Your task to perform on an android device: Open the calendar app, open the side menu, and click the "Day" option Image 0: 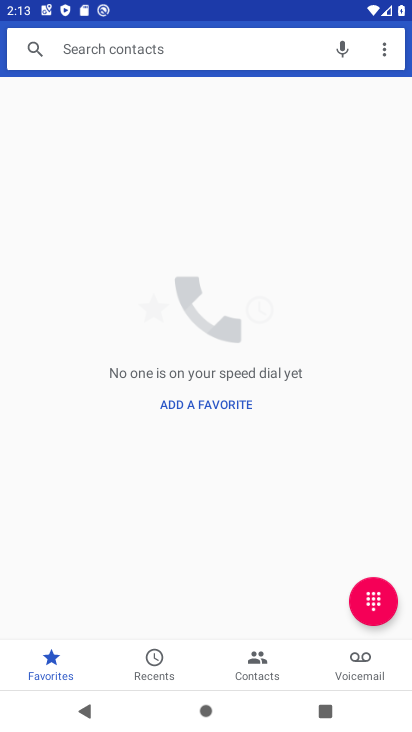
Step 0: press back button
Your task to perform on an android device: Open the calendar app, open the side menu, and click the "Day" option Image 1: 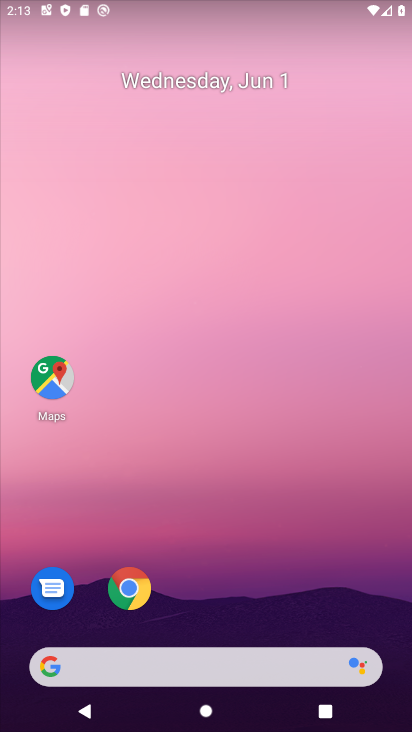
Step 1: drag from (253, 561) to (328, 39)
Your task to perform on an android device: Open the calendar app, open the side menu, and click the "Day" option Image 2: 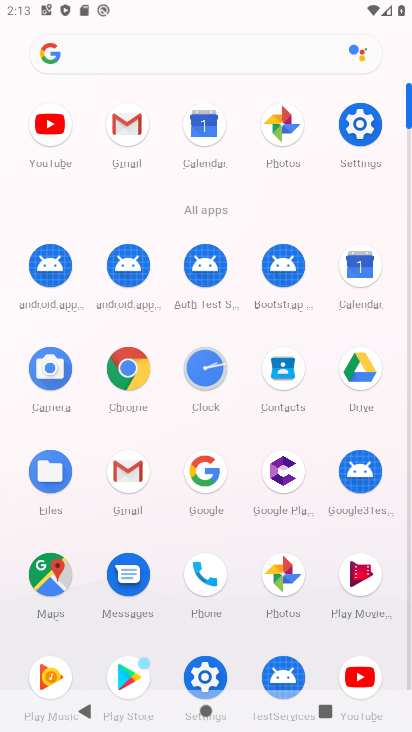
Step 2: click (364, 284)
Your task to perform on an android device: Open the calendar app, open the side menu, and click the "Day" option Image 3: 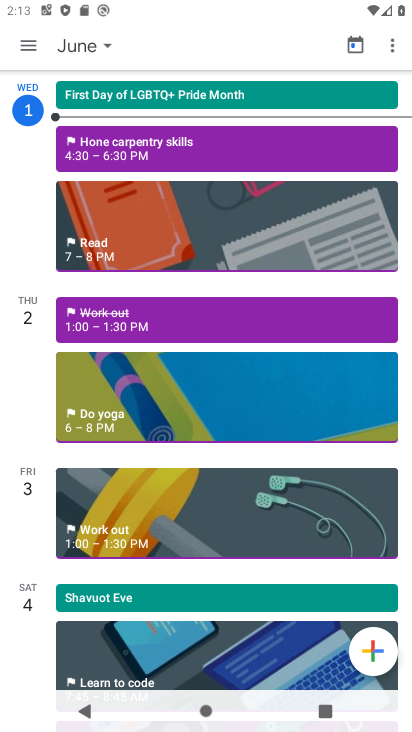
Step 3: click (25, 41)
Your task to perform on an android device: Open the calendar app, open the side menu, and click the "Day" option Image 4: 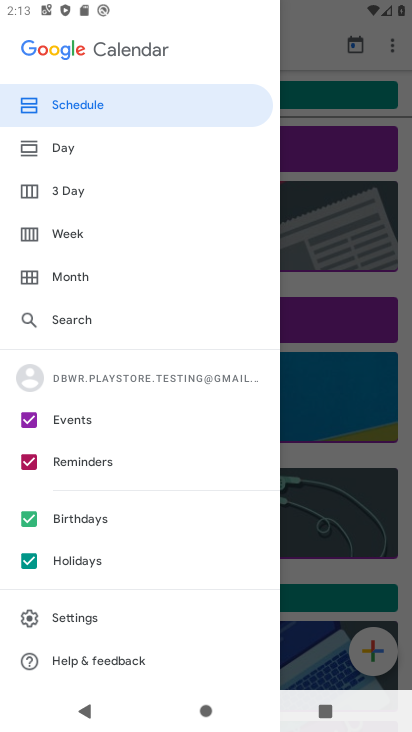
Step 4: click (96, 153)
Your task to perform on an android device: Open the calendar app, open the side menu, and click the "Day" option Image 5: 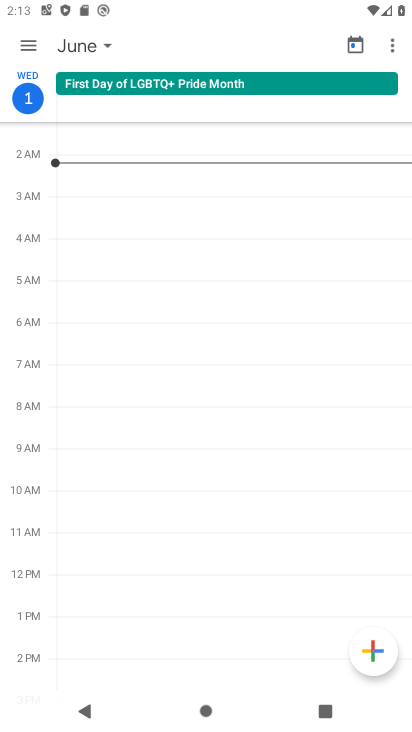
Step 5: task complete